Your task to perform on an android device: Go to Yahoo.com Image 0: 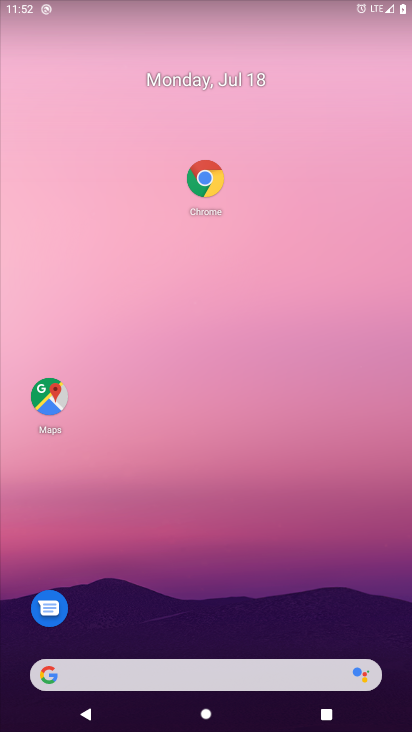
Step 0: click (132, 662)
Your task to perform on an android device: Go to Yahoo.com Image 1: 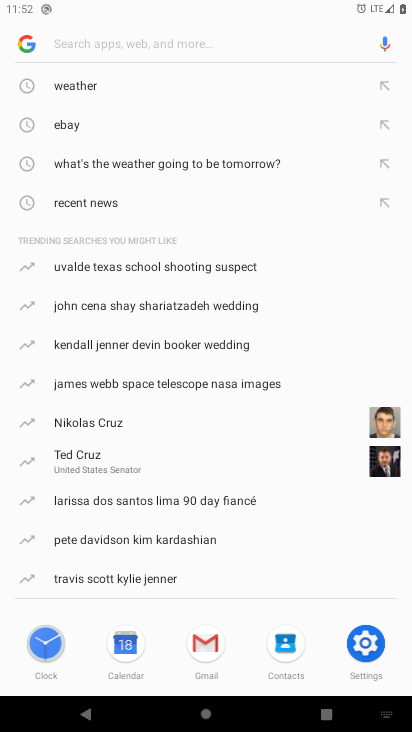
Step 1: type "Yahoo.com"
Your task to perform on an android device: Go to Yahoo.com Image 2: 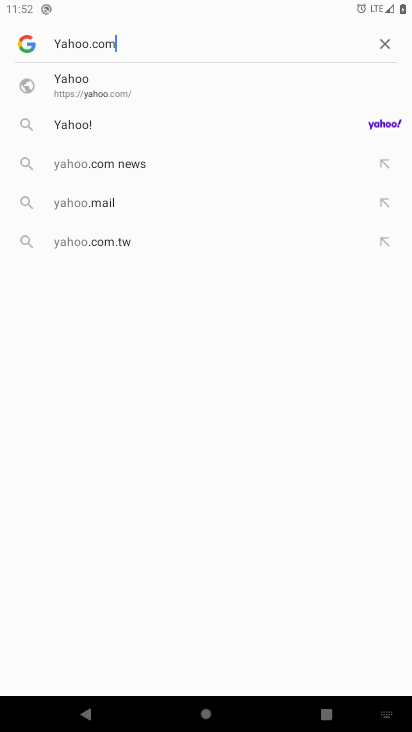
Step 2: type ""
Your task to perform on an android device: Go to Yahoo.com Image 3: 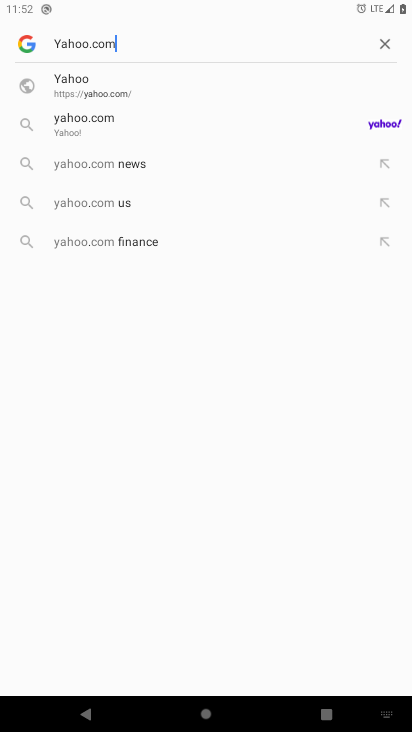
Step 3: task complete